Your task to perform on an android device: Toggle the flashlight Image 0: 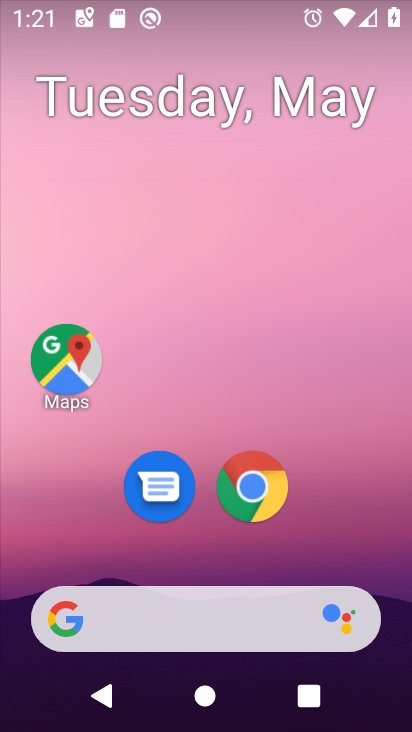
Step 0: drag from (95, 547) to (392, 428)
Your task to perform on an android device: Toggle the flashlight Image 1: 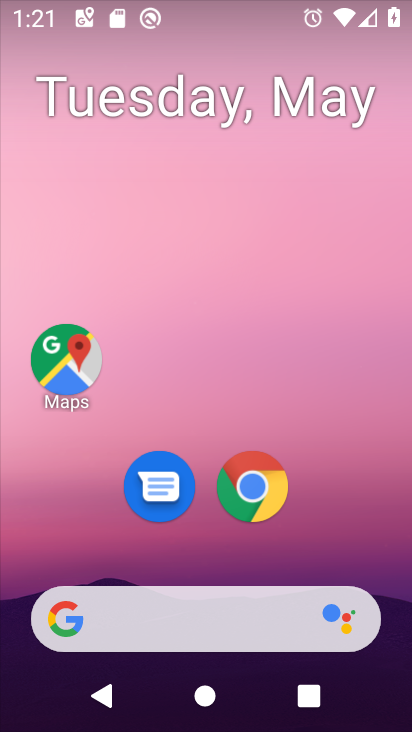
Step 1: drag from (84, 306) to (264, 12)
Your task to perform on an android device: Toggle the flashlight Image 2: 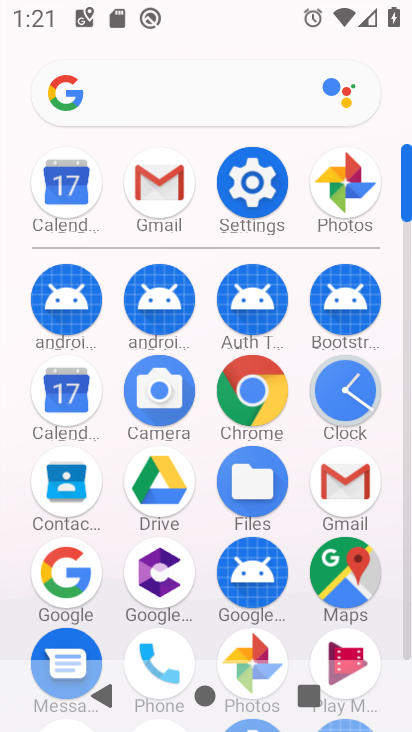
Step 2: click (253, 194)
Your task to perform on an android device: Toggle the flashlight Image 3: 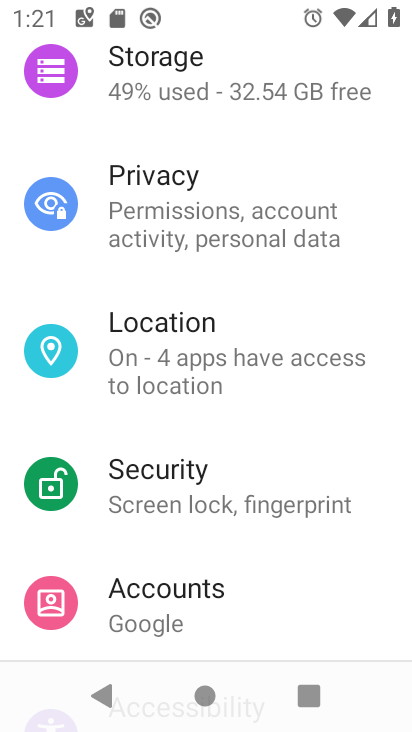
Step 3: task complete